Your task to perform on an android device: Show me productivity apps on the Play Store Image 0: 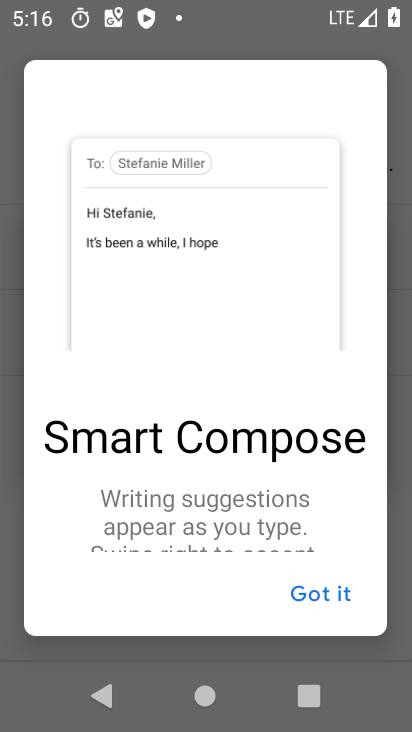
Step 0: press home button
Your task to perform on an android device: Show me productivity apps on the Play Store Image 1: 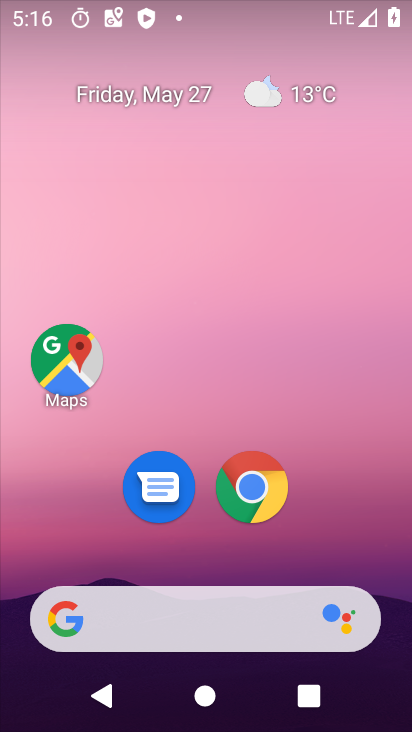
Step 1: drag from (340, 450) to (302, 87)
Your task to perform on an android device: Show me productivity apps on the Play Store Image 2: 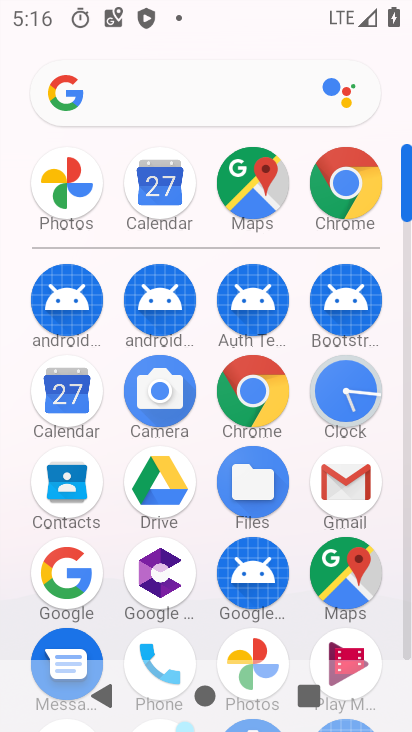
Step 2: drag from (294, 581) to (286, 213)
Your task to perform on an android device: Show me productivity apps on the Play Store Image 3: 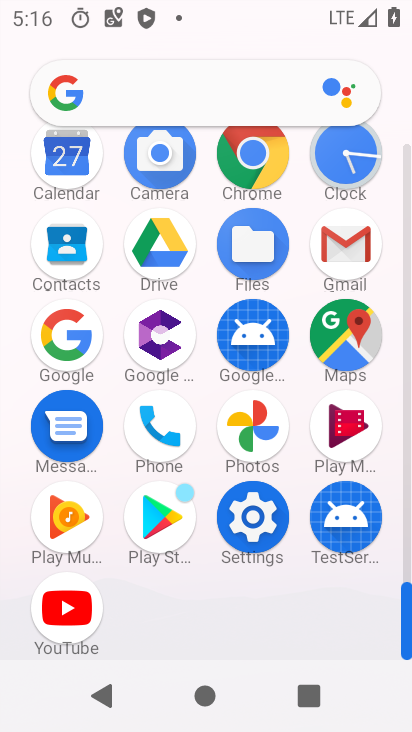
Step 3: click (152, 516)
Your task to perform on an android device: Show me productivity apps on the Play Store Image 4: 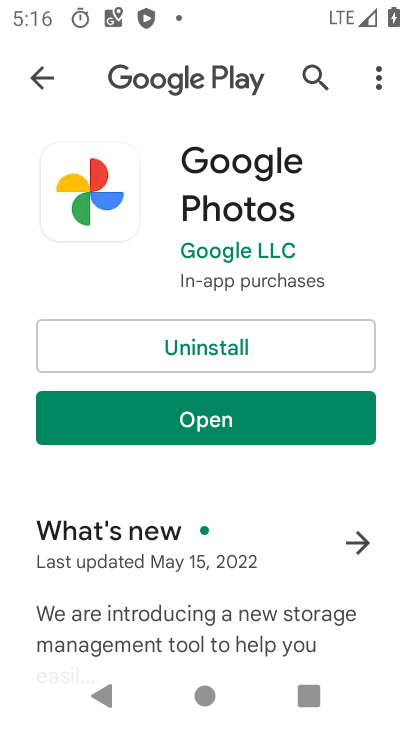
Step 4: click (39, 77)
Your task to perform on an android device: Show me productivity apps on the Play Store Image 5: 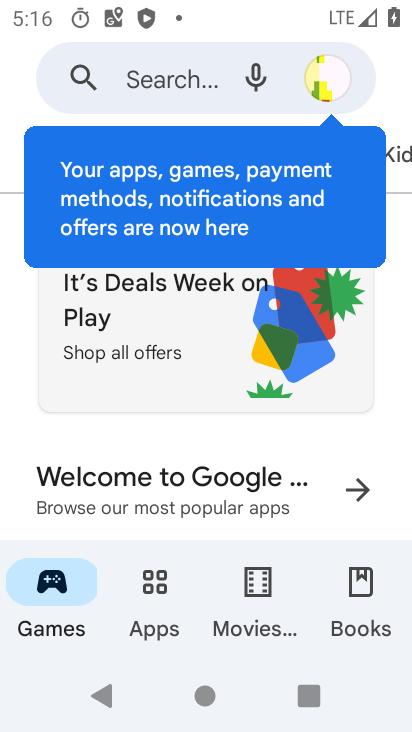
Step 5: click (134, 574)
Your task to perform on an android device: Show me productivity apps on the Play Store Image 6: 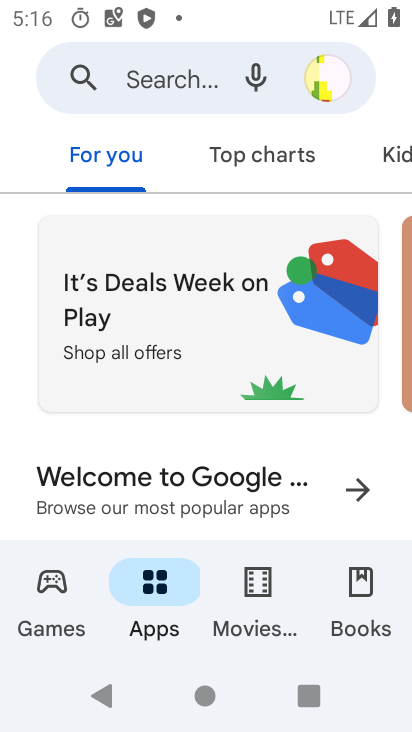
Step 6: task complete